Your task to perform on an android device: set default search engine in the chrome app Image 0: 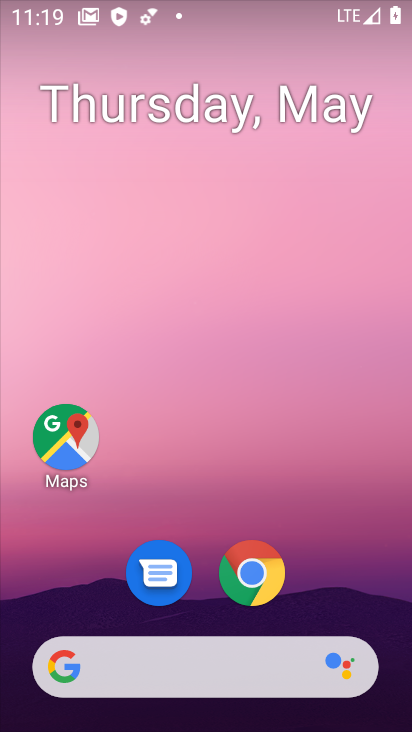
Step 0: click (253, 573)
Your task to perform on an android device: set default search engine in the chrome app Image 1: 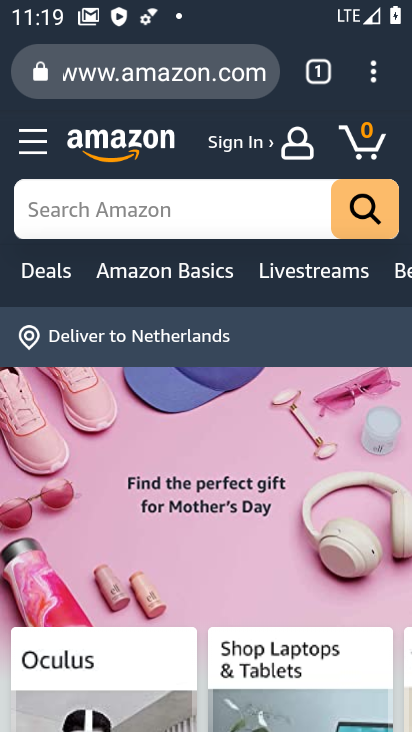
Step 1: click (376, 73)
Your task to perform on an android device: set default search engine in the chrome app Image 2: 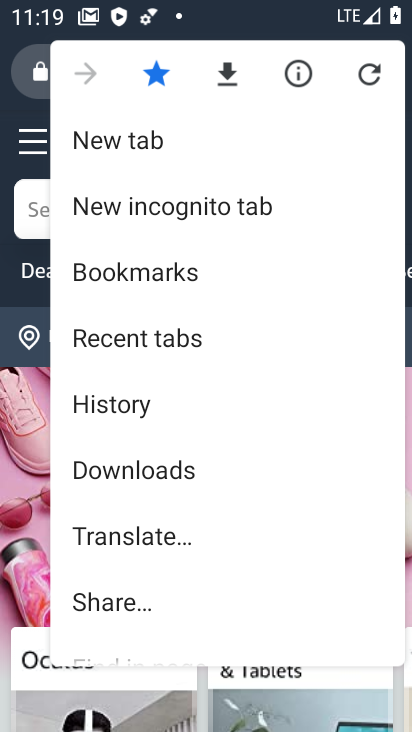
Step 2: drag from (173, 509) to (215, 443)
Your task to perform on an android device: set default search engine in the chrome app Image 3: 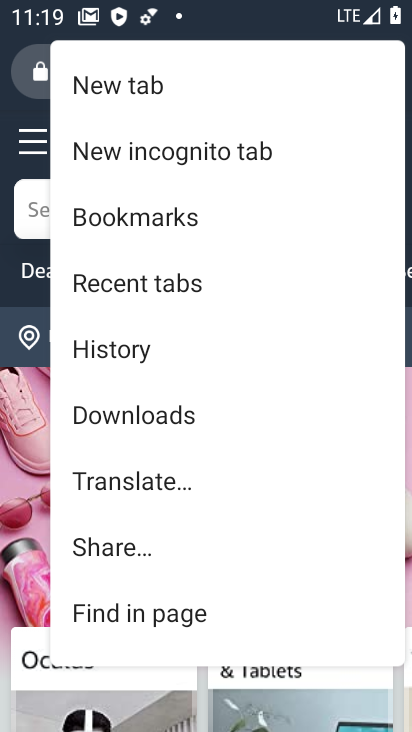
Step 3: drag from (157, 538) to (228, 454)
Your task to perform on an android device: set default search engine in the chrome app Image 4: 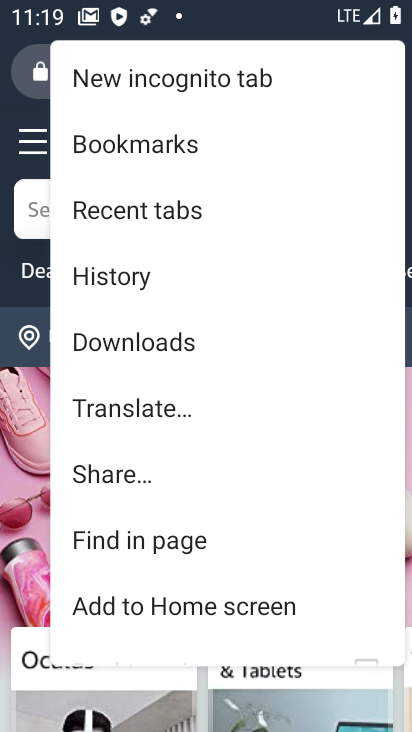
Step 4: drag from (173, 520) to (215, 452)
Your task to perform on an android device: set default search engine in the chrome app Image 5: 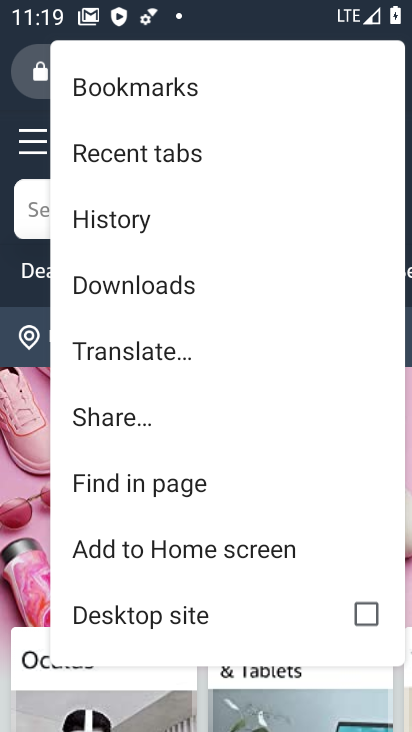
Step 5: drag from (207, 527) to (266, 392)
Your task to perform on an android device: set default search engine in the chrome app Image 6: 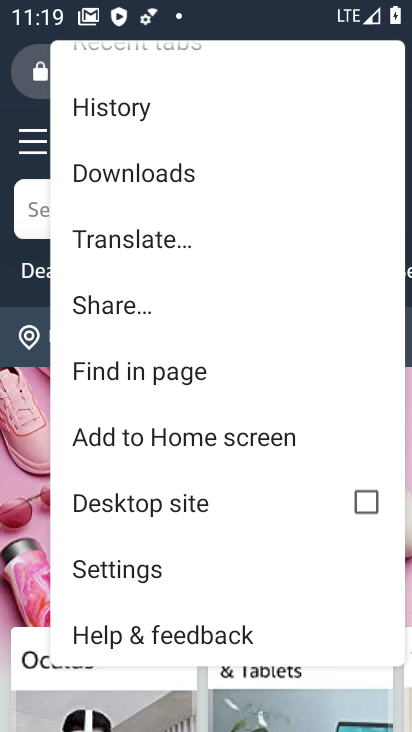
Step 6: click (135, 567)
Your task to perform on an android device: set default search engine in the chrome app Image 7: 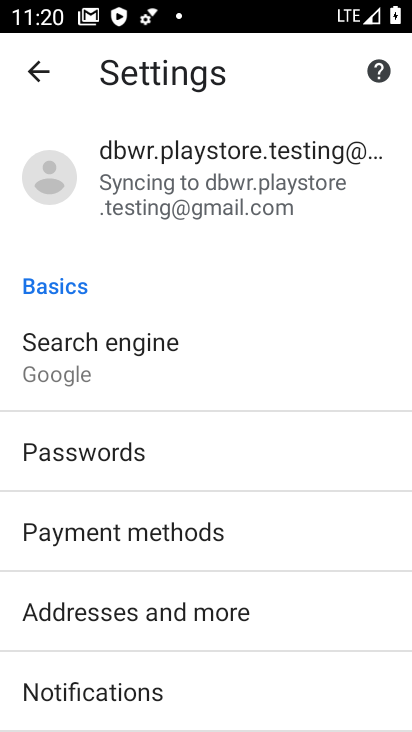
Step 7: click (161, 373)
Your task to perform on an android device: set default search engine in the chrome app Image 8: 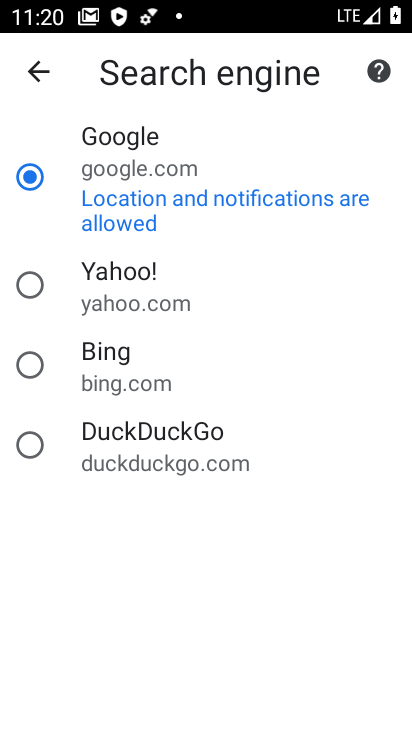
Step 8: click (24, 177)
Your task to perform on an android device: set default search engine in the chrome app Image 9: 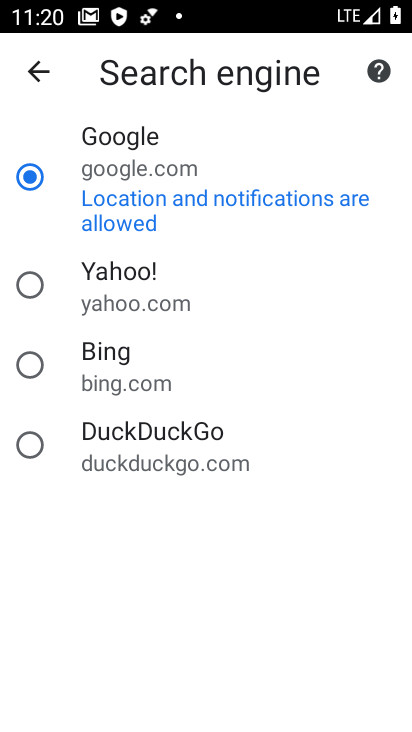
Step 9: task complete